Your task to perform on an android device: Add "duracell triple a" to the cart on ebay Image 0: 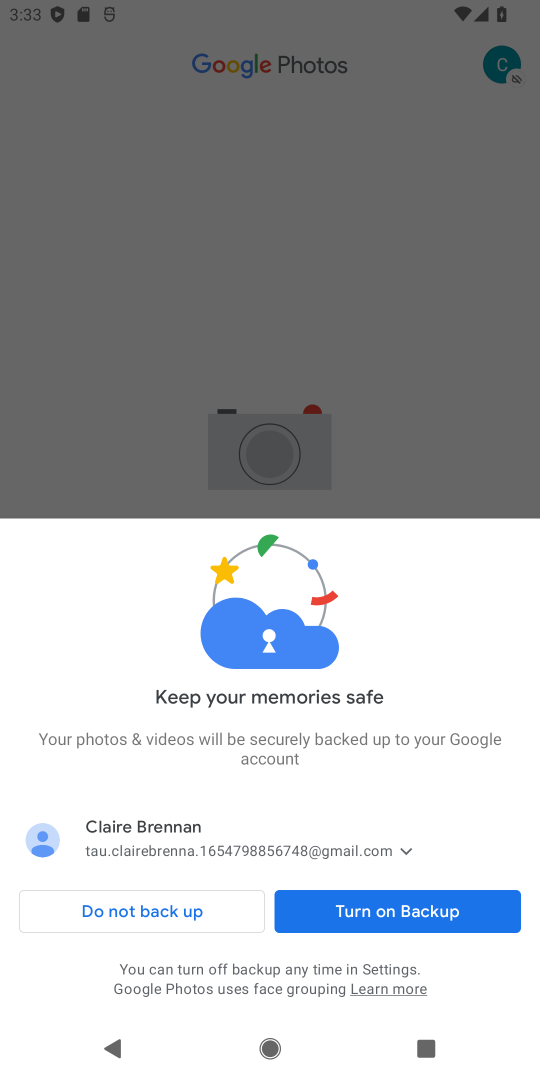
Step 0: press home button
Your task to perform on an android device: Add "duracell triple a" to the cart on ebay Image 1: 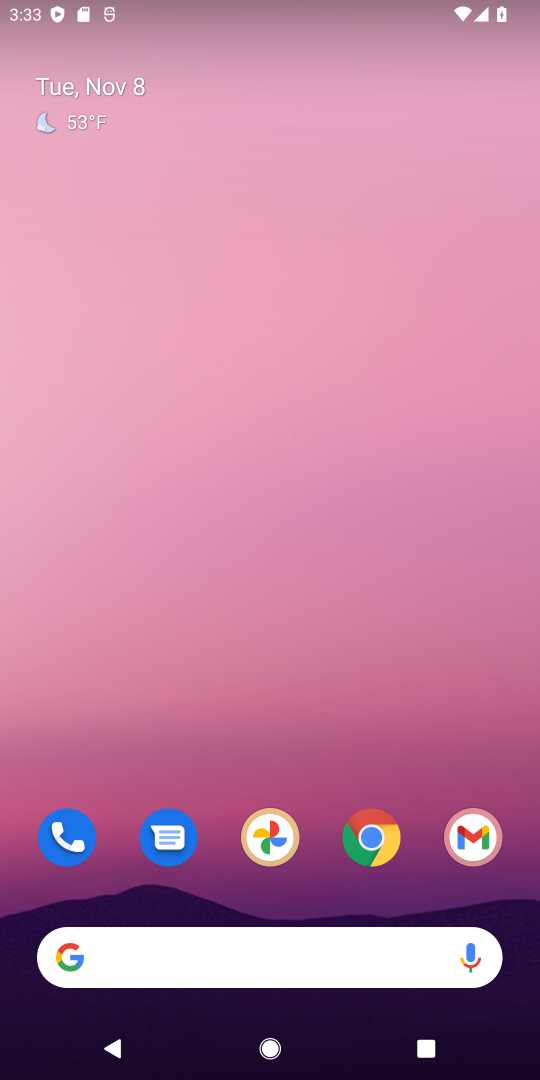
Step 1: click (364, 846)
Your task to perform on an android device: Add "duracell triple a" to the cart on ebay Image 2: 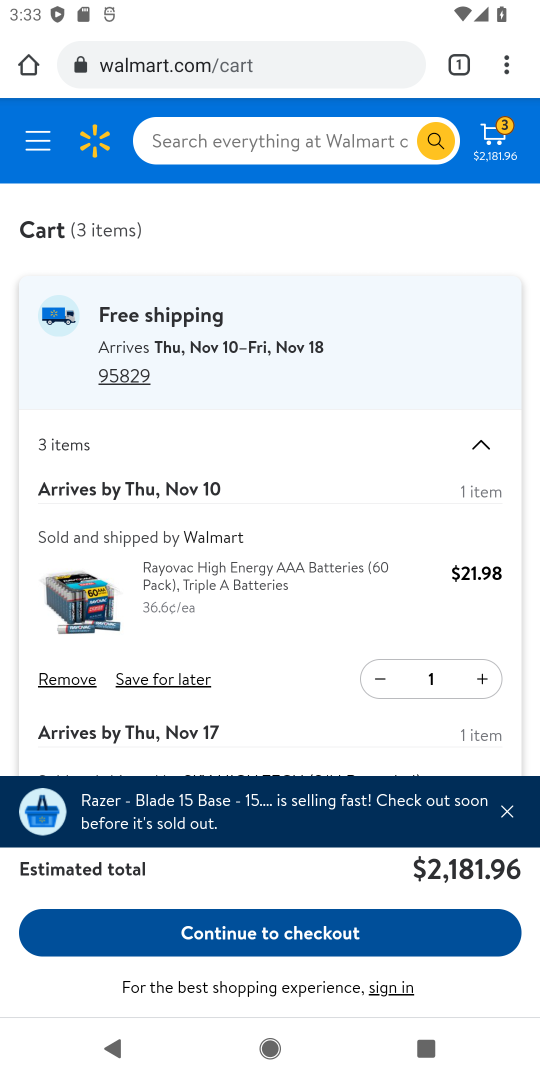
Step 2: click (164, 71)
Your task to perform on an android device: Add "duracell triple a" to the cart on ebay Image 3: 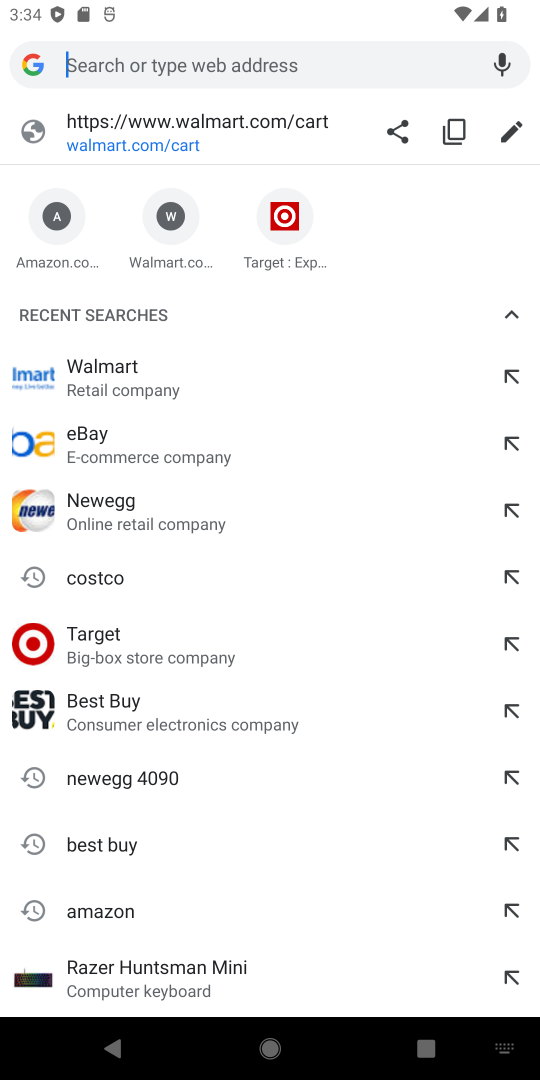
Step 3: type "ebay"
Your task to perform on an android device: Add "duracell triple a" to the cart on ebay Image 4: 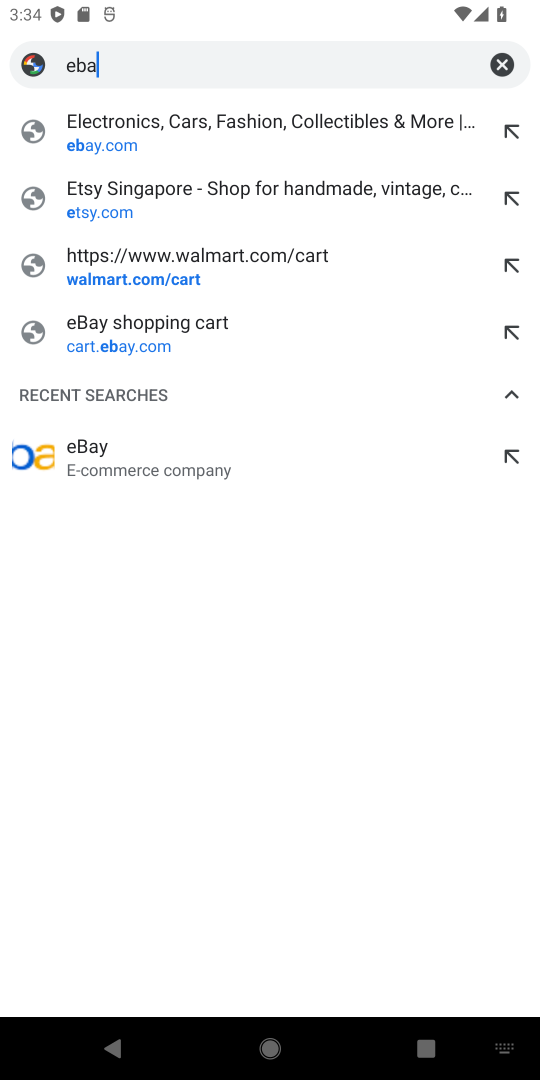
Step 4: type ""
Your task to perform on an android device: Add "duracell triple a" to the cart on ebay Image 5: 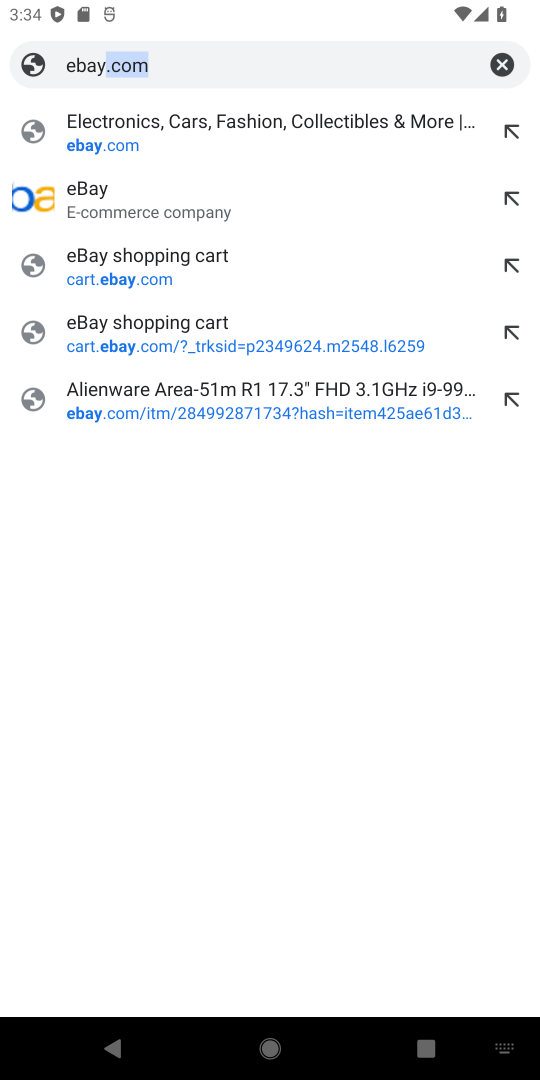
Step 5: click (100, 204)
Your task to perform on an android device: Add "duracell triple a" to the cart on ebay Image 6: 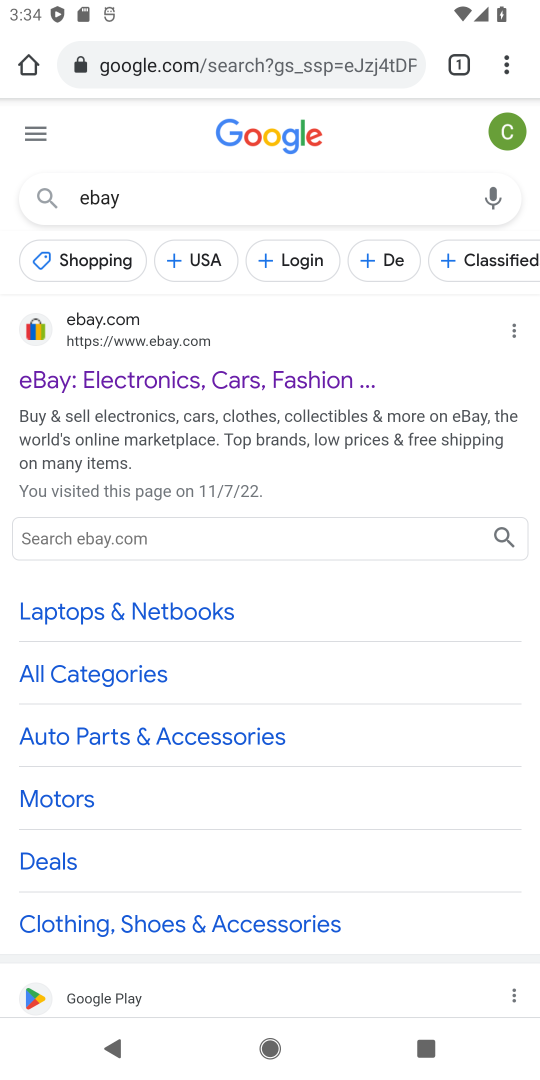
Step 6: click (139, 385)
Your task to perform on an android device: Add "duracell triple a" to the cart on ebay Image 7: 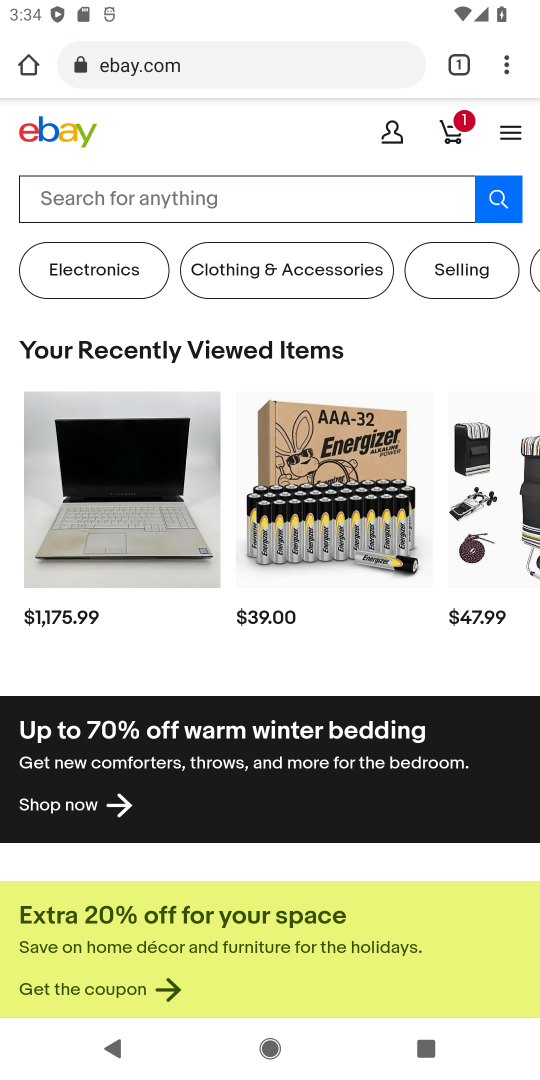
Step 7: click (128, 199)
Your task to perform on an android device: Add "duracell triple a" to the cart on ebay Image 8: 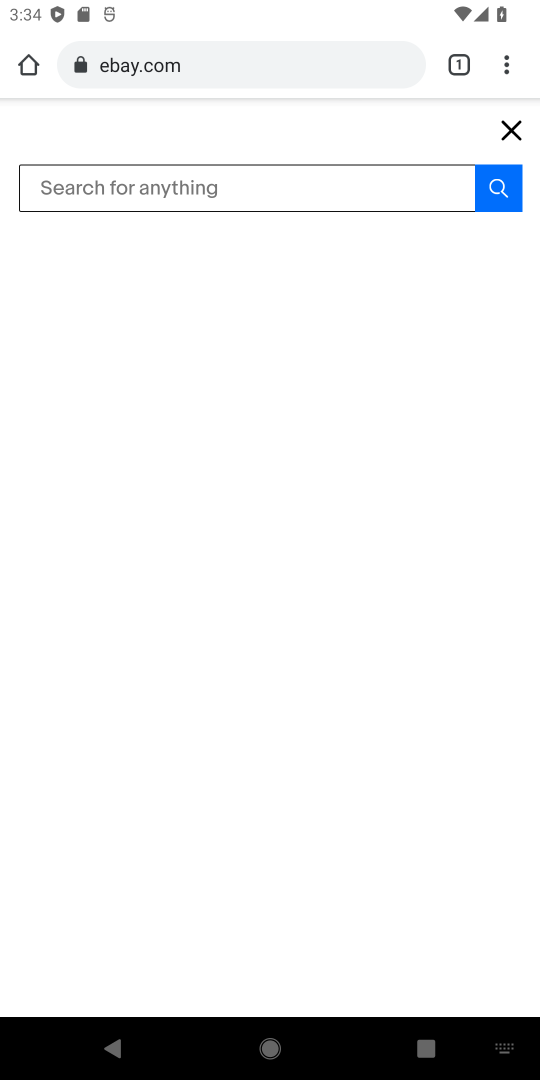
Step 8: type "duracell triple"
Your task to perform on an android device: Add "duracell triple a" to the cart on ebay Image 9: 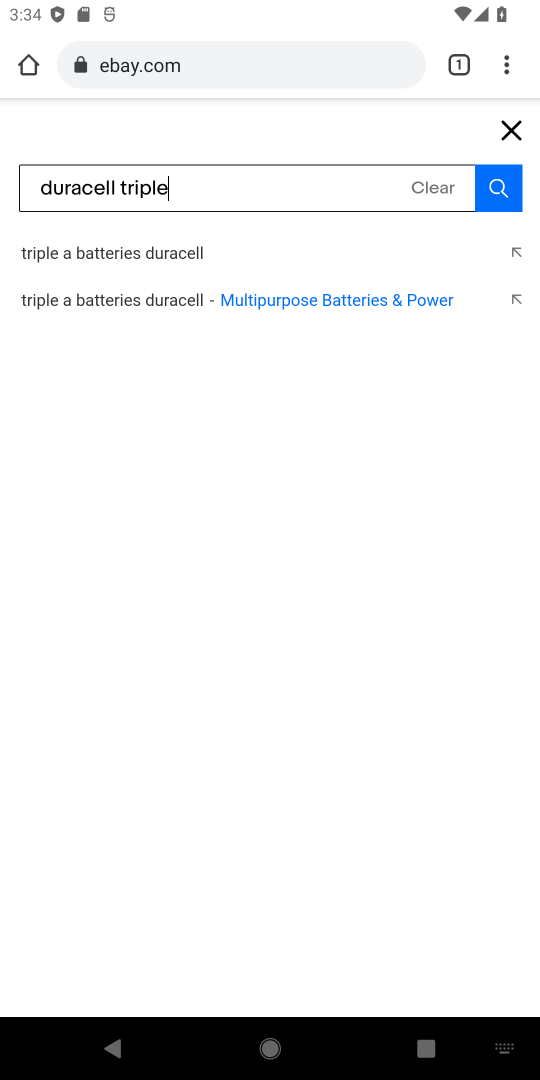
Step 9: click (492, 191)
Your task to perform on an android device: Add "duracell triple a" to the cart on ebay Image 10: 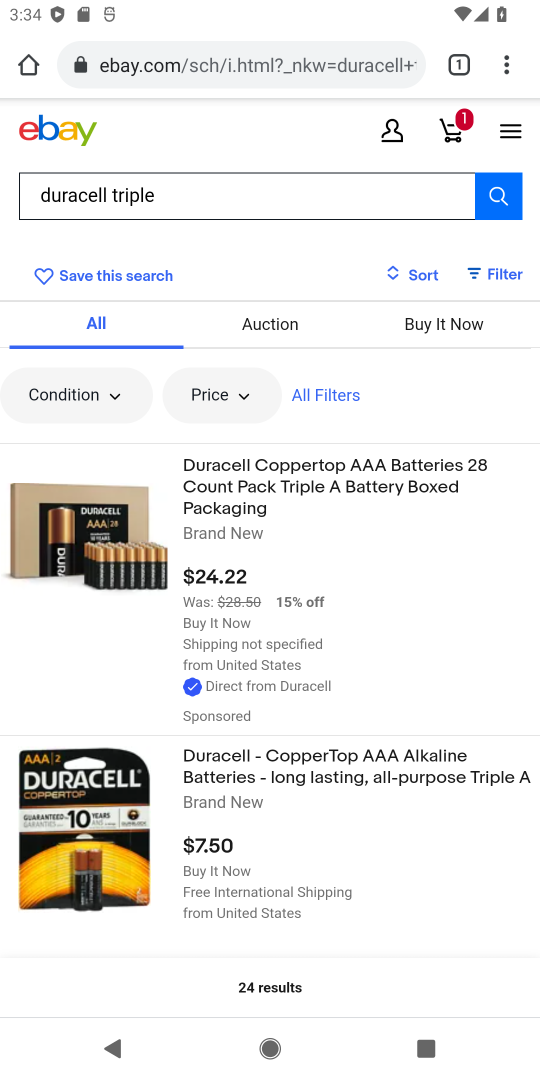
Step 10: click (239, 466)
Your task to perform on an android device: Add "duracell triple a" to the cart on ebay Image 11: 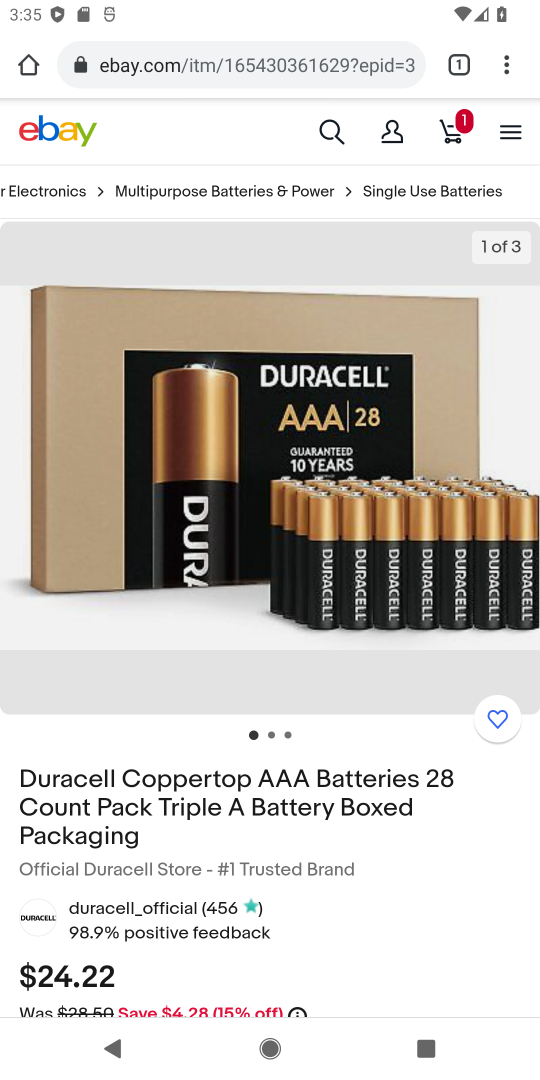
Step 11: drag from (171, 705) to (154, 382)
Your task to perform on an android device: Add "duracell triple a" to the cart on ebay Image 12: 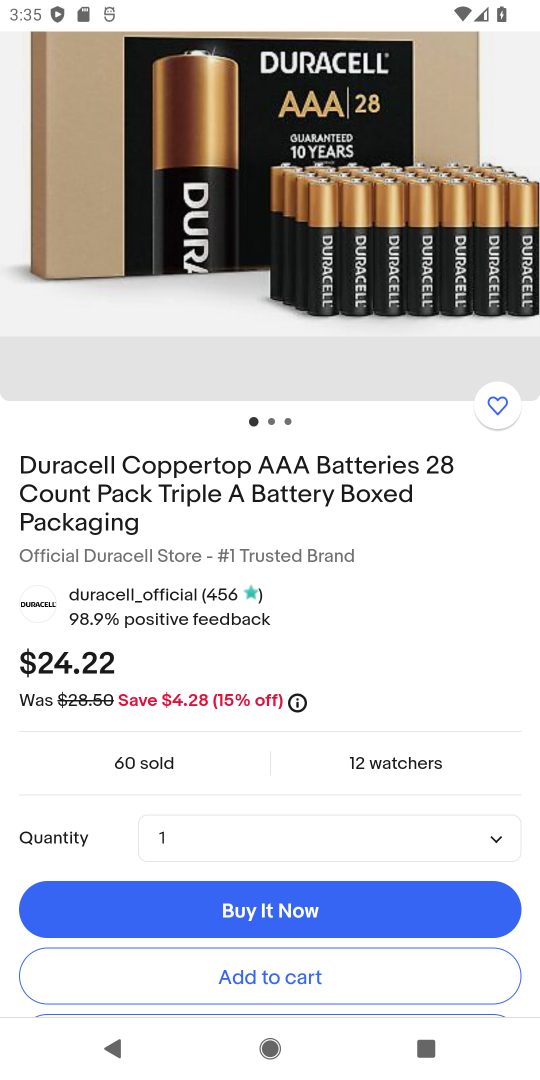
Step 12: click (236, 976)
Your task to perform on an android device: Add "duracell triple a" to the cart on ebay Image 13: 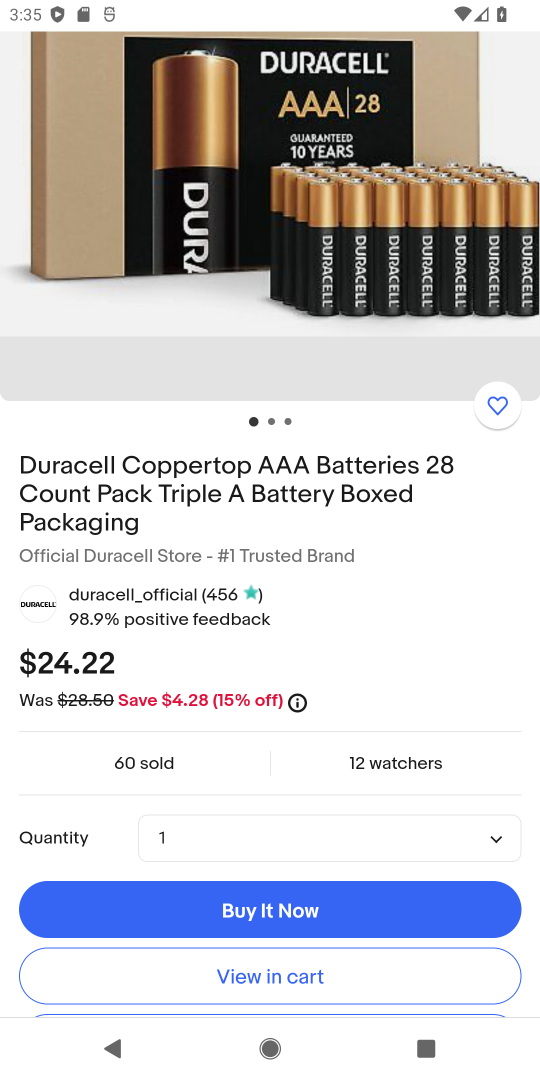
Step 13: click (276, 985)
Your task to perform on an android device: Add "duracell triple a" to the cart on ebay Image 14: 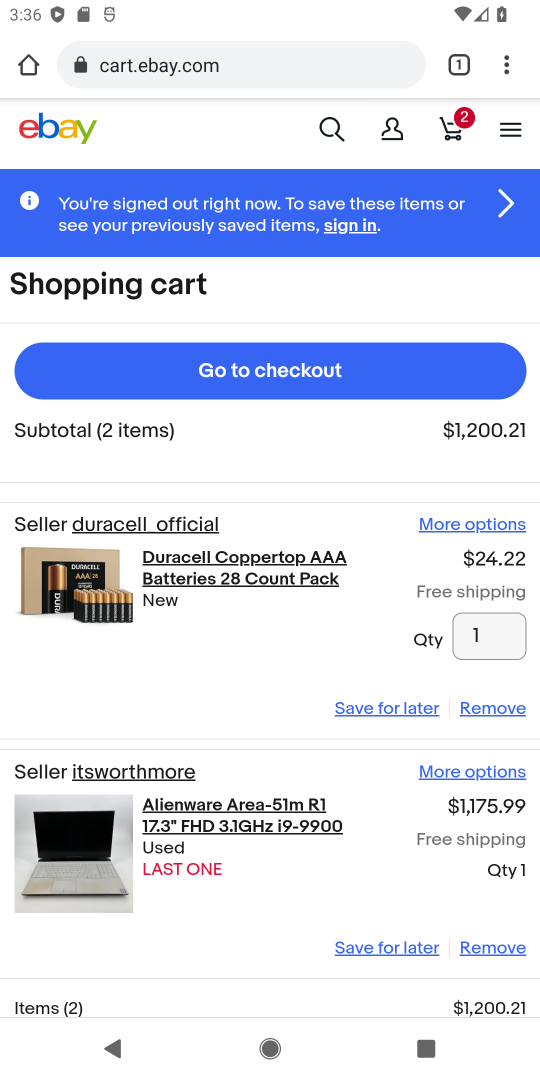
Step 14: task complete